Your task to perform on an android device: turn on notifications settings in the gmail app Image 0: 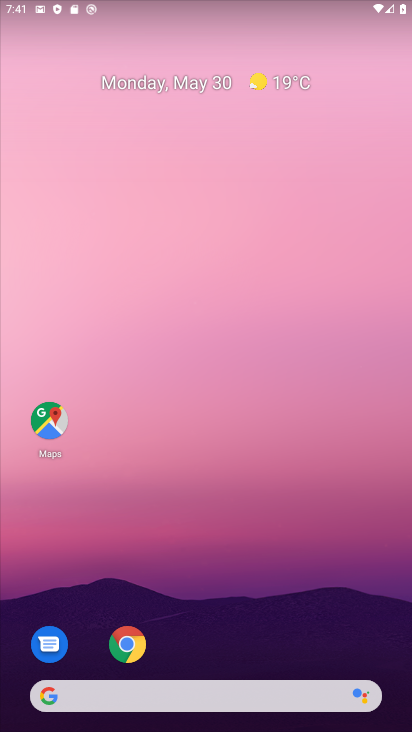
Step 0: drag from (261, 323) to (298, 33)
Your task to perform on an android device: turn on notifications settings in the gmail app Image 1: 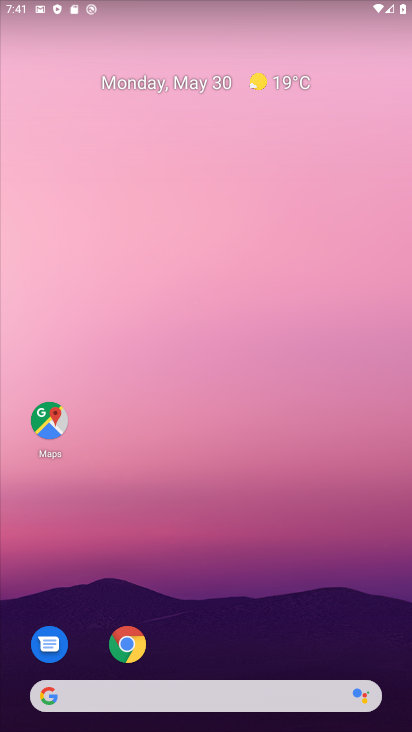
Step 1: drag from (203, 601) to (292, 5)
Your task to perform on an android device: turn on notifications settings in the gmail app Image 2: 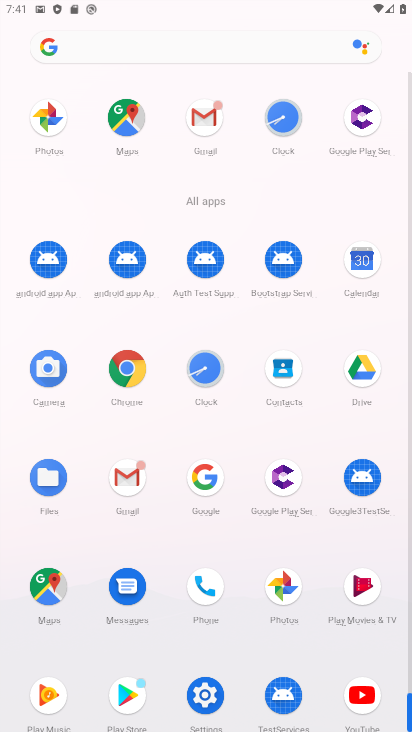
Step 2: click (120, 473)
Your task to perform on an android device: turn on notifications settings in the gmail app Image 3: 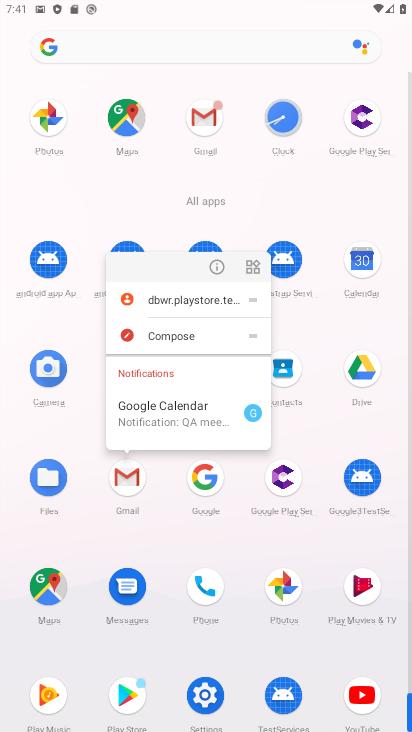
Step 3: click (215, 262)
Your task to perform on an android device: turn on notifications settings in the gmail app Image 4: 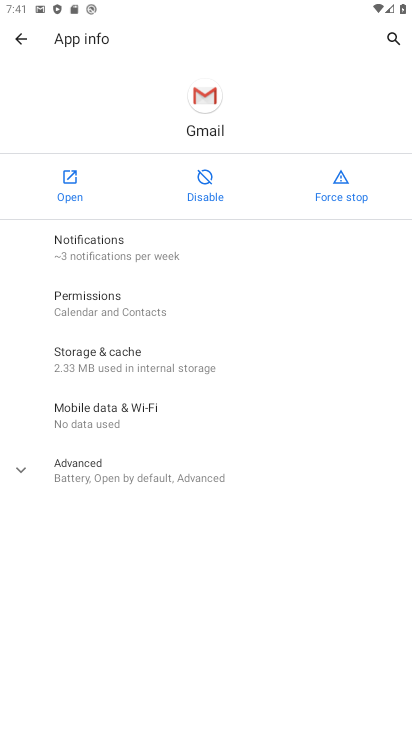
Step 4: click (61, 202)
Your task to perform on an android device: turn on notifications settings in the gmail app Image 5: 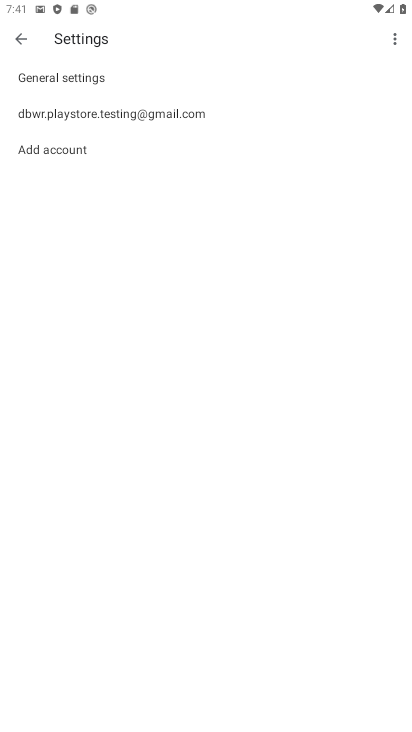
Step 5: click (116, 100)
Your task to perform on an android device: turn on notifications settings in the gmail app Image 6: 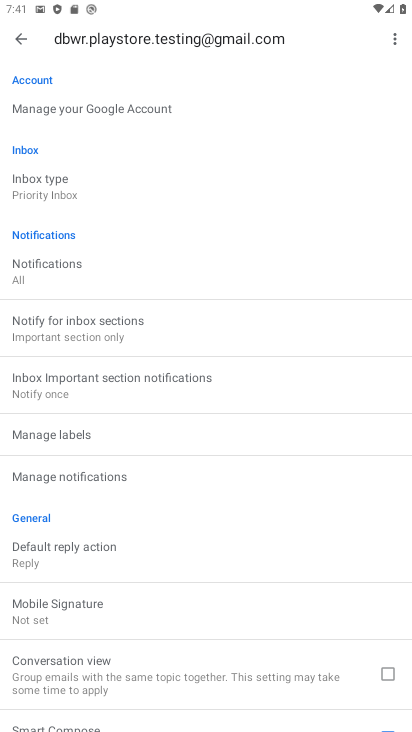
Step 6: click (123, 467)
Your task to perform on an android device: turn on notifications settings in the gmail app Image 7: 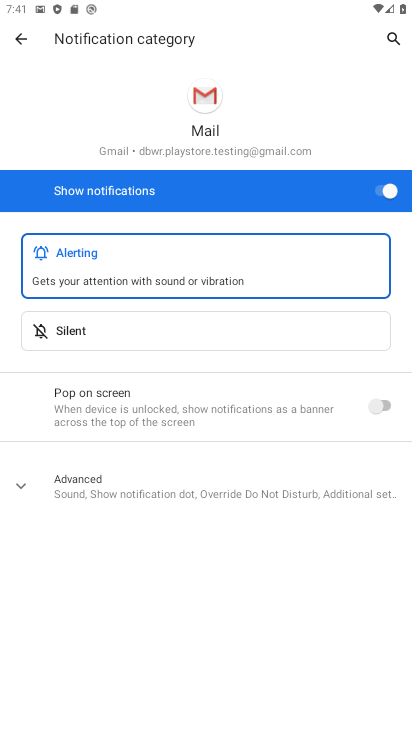
Step 7: task complete